Your task to perform on an android device: turn on translation in the chrome app Image 0: 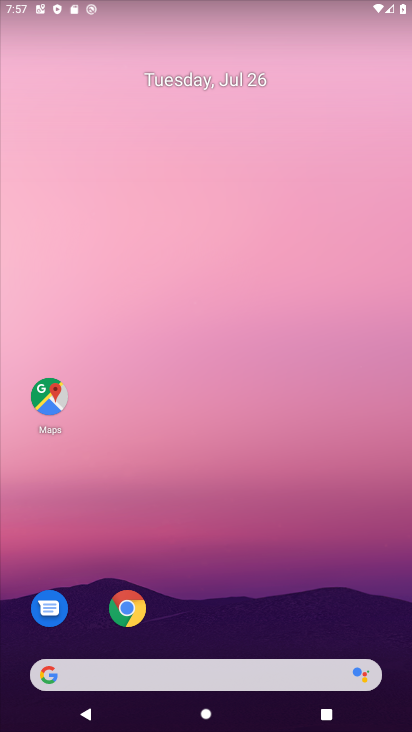
Step 0: click (140, 605)
Your task to perform on an android device: turn on translation in the chrome app Image 1: 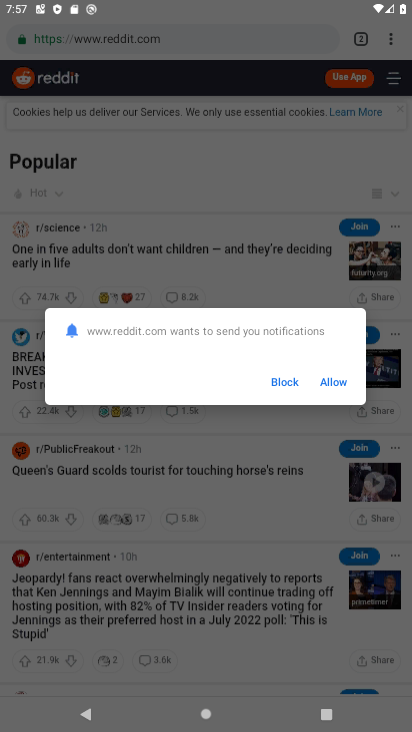
Step 1: click (281, 363)
Your task to perform on an android device: turn on translation in the chrome app Image 2: 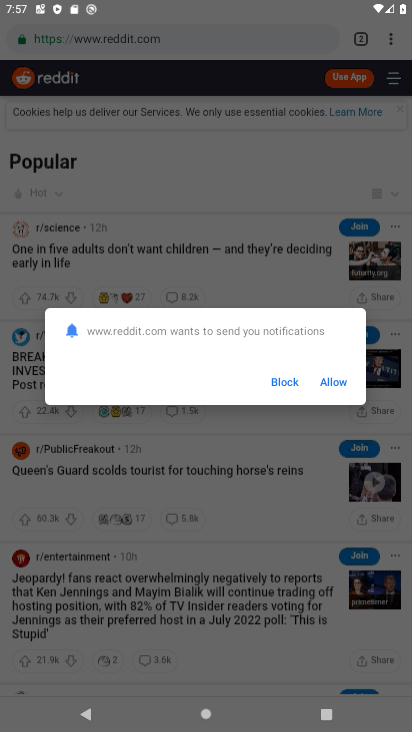
Step 2: click (278, 376)
Your task to perform on an android device: turn on translation in the chrome app Image 3: 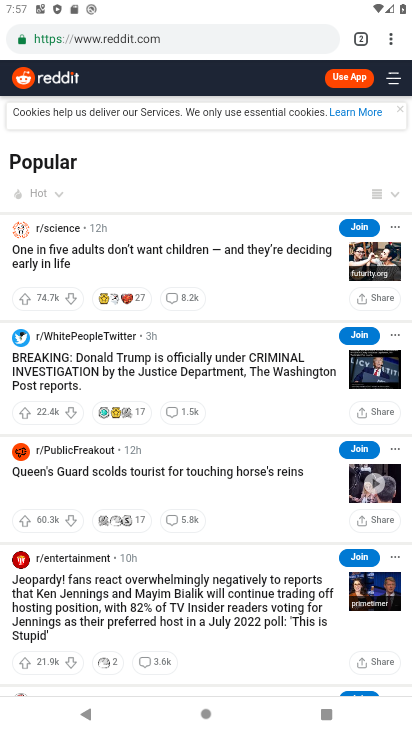
Step 3: click (382, 43)
Your task to perform on an android device: turn on translation in the chrome app Image 4: 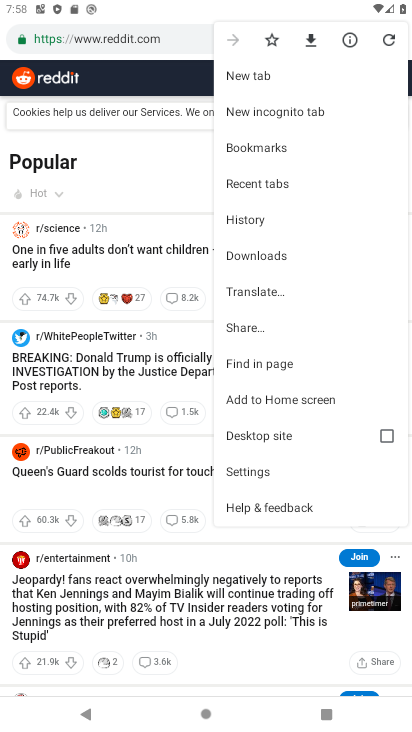
Step 4: click (249, 466)
Your task to perform on an android device: turn on translation in the chrome app Image 5: 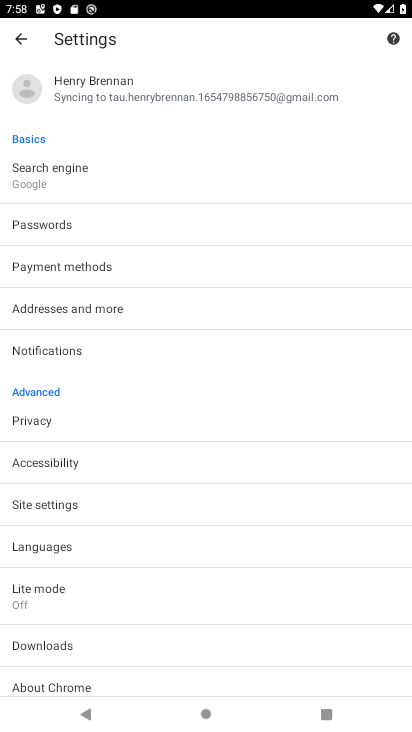
Step 5: click (45, 547)
Your task to perform on an android device: turn on translation in the chrome app Image 6: 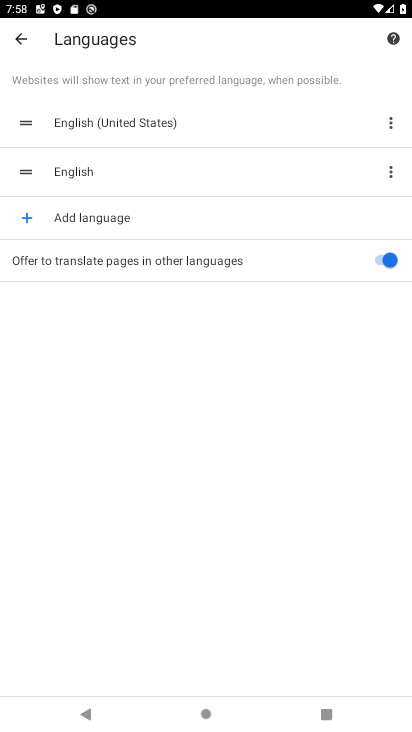
Step 6: task complete